Your task to perform on an android device: Open accessibility settings Image 0: 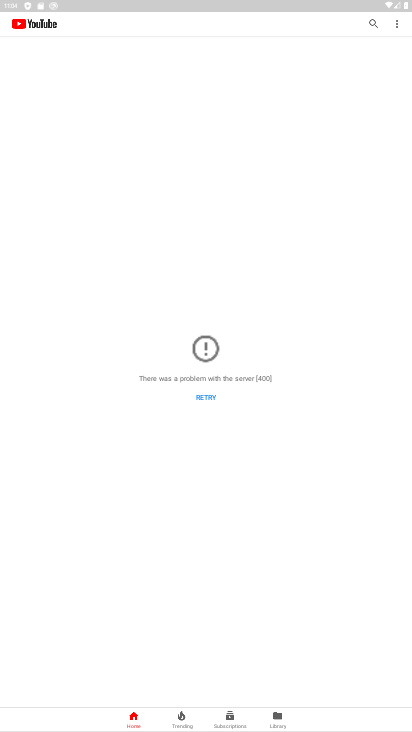
Step 0: press back button
Your task to perform on an android device: Open accessibility settings Image 1: 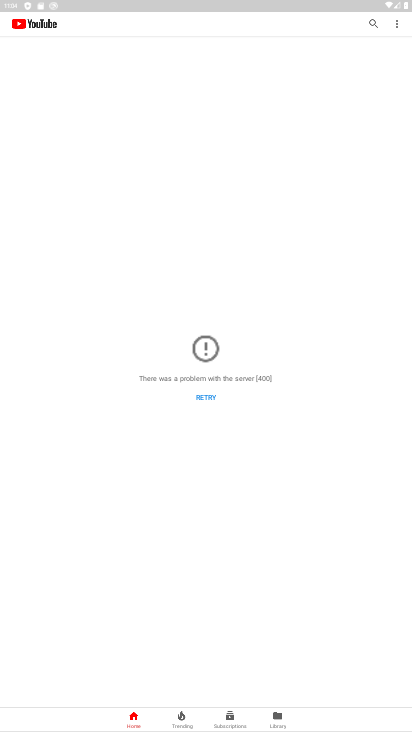
Step 1: press back button
Your task to perform on an android device: Open accessibility settings Image 2: 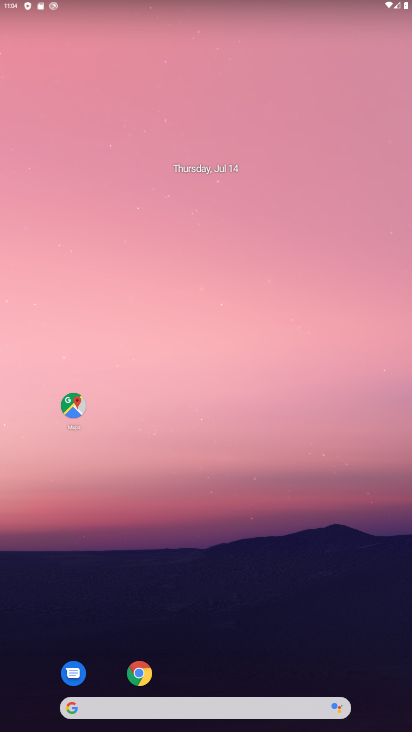
Step 2: press home button
Your task to perform on an android device: Open accessibility settings Image 3: 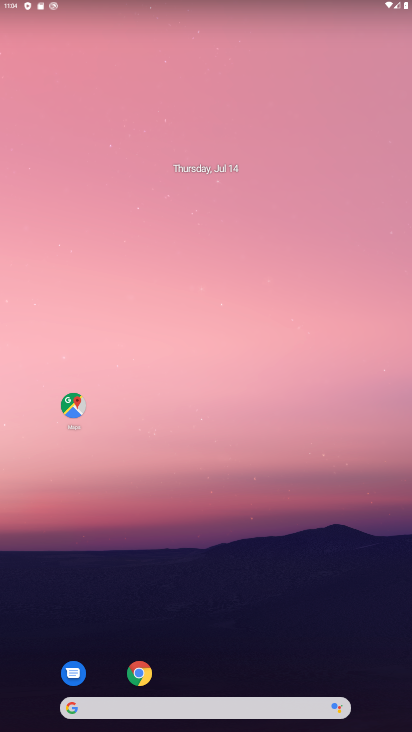
Step 3: press home button
Your task to perform on an android device: Open accessibility settings Image 4: 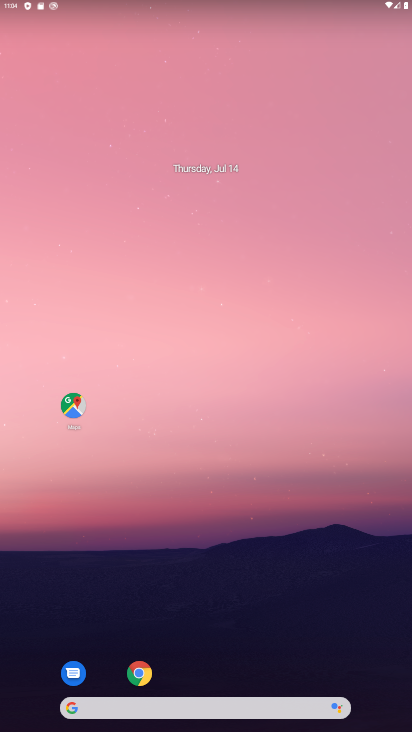
Step 4: drag from (172, 681) to (107, 143)
Your task to perform on an android device: Open accessibility settings Image 5: 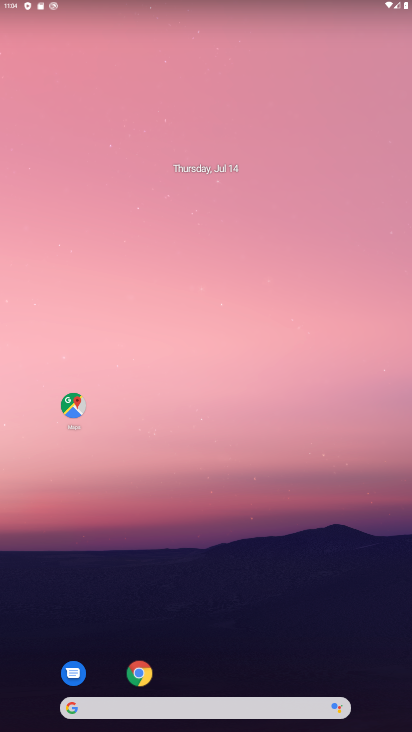
Step 5: drag from (213, 421) to (213, 117)
Your task to perform on an android device: Open accessibility settings Image 6: 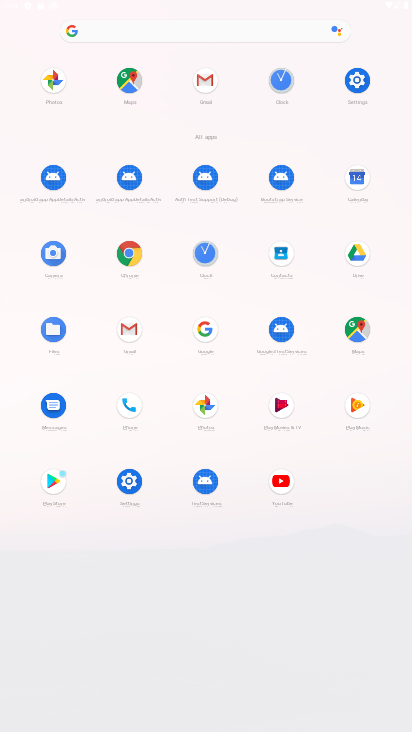
Step 6: drag from (149, 565) to (86, 133)
Your task to perform on an android device: Open accessibility settings Image 7: 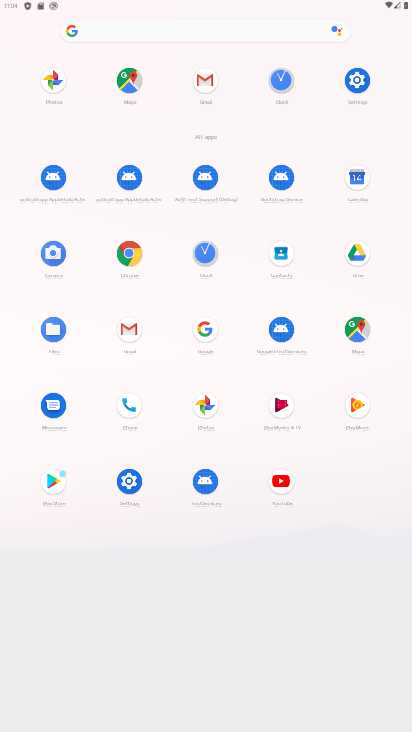
Step 7: click (119, 481)
Your task to perform on an android device: Open accessibility settings Image 8: 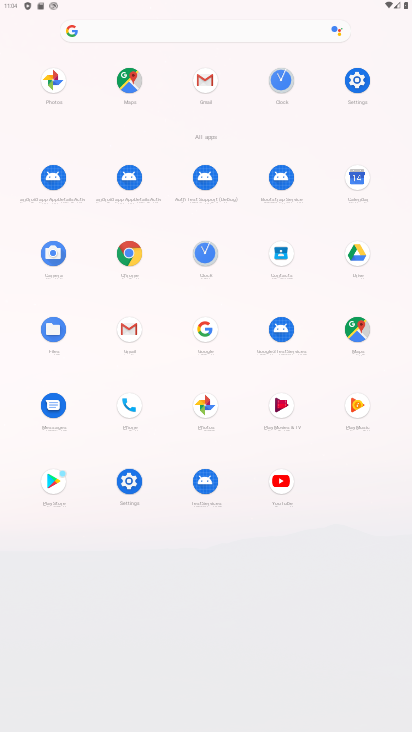
Step 8: click (122, 476)
Your task to perform on an android device: Open accessibility settings Image 9: 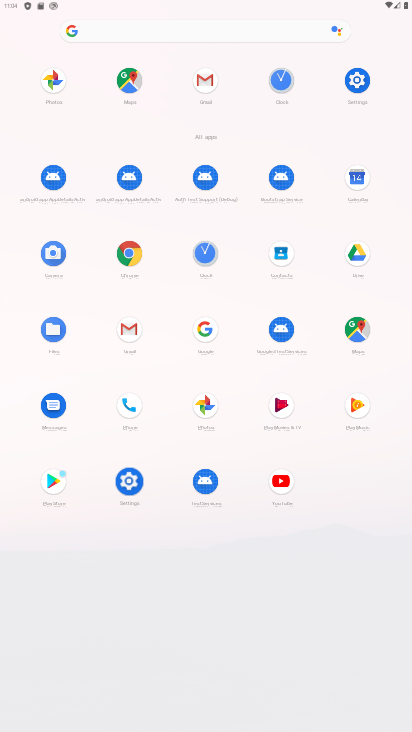
Step 9: click (122, 476)
Your task to perform on an android device: Open accessibility settings Image 10: 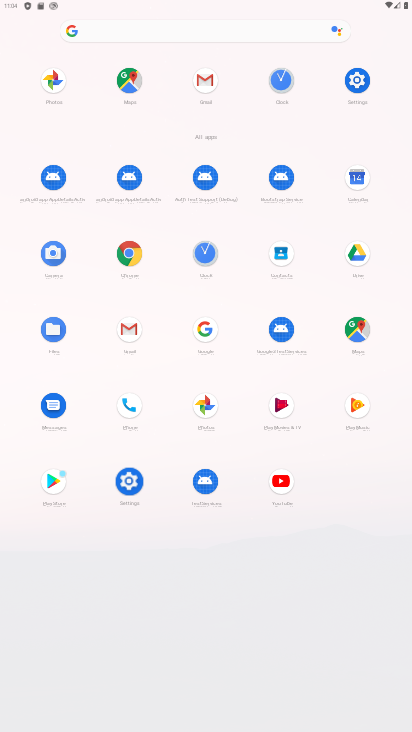
Step 10: click (122, 476)
Your task to perform on an android device: Open accessibility settings Image 11: 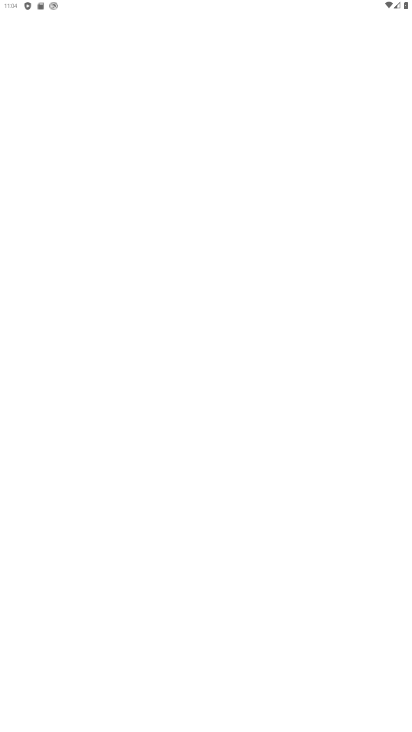
Step 11: click (126, 476)
Your task to perform on an android device: Open accessibility settings Image 12: 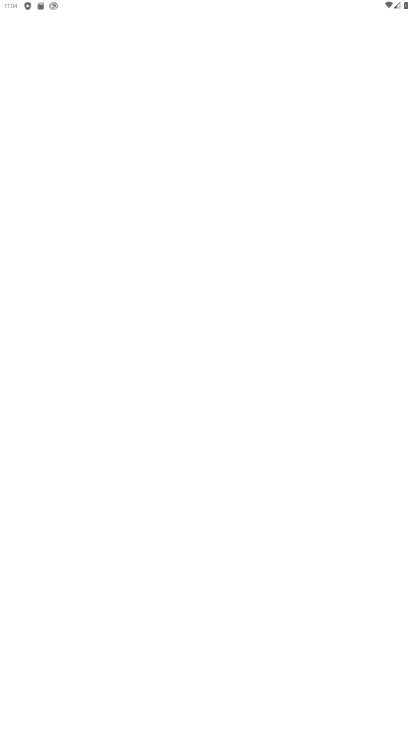
Step 12: click (123, 482)
Your task to perform on an android device: Open accessibility settings Image 13: 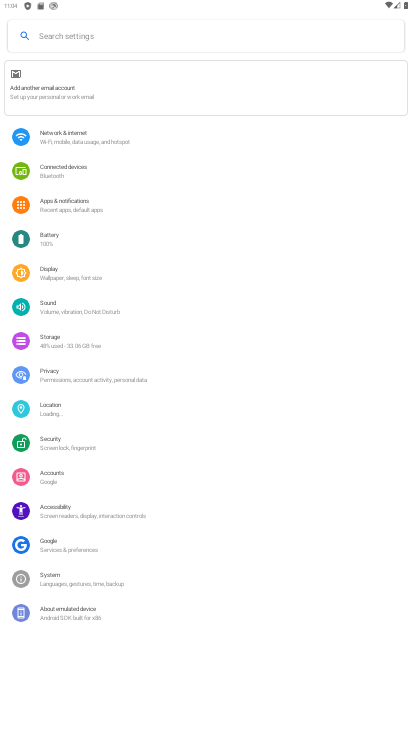
Step 13: click (64, 510)
Your task to perform on an android device: Open accessibility settings Image 14: 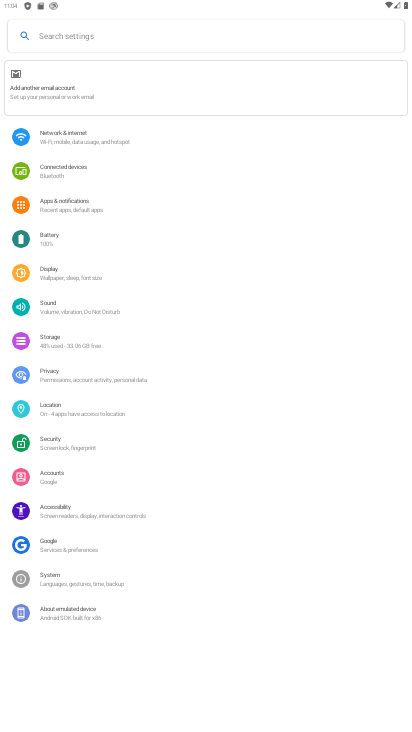
Step 14: click (63, 511)
Your task to perform on an android device: Open accessibility settings Image 15: 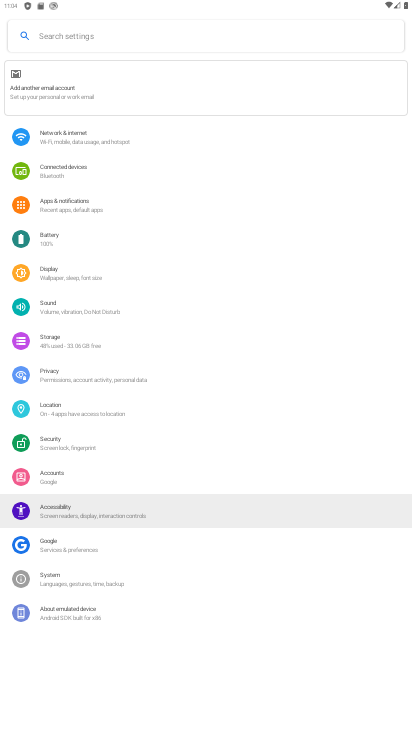
Step 15: click (64, 512)
Your task to perform on an android device: Open accessibility settings Image 16: 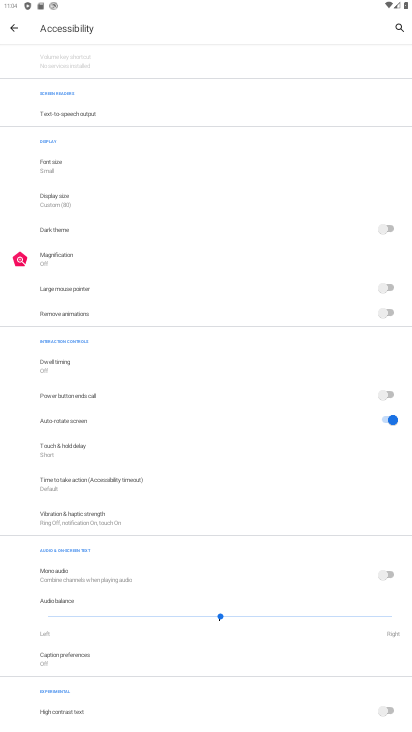
Step 16: task complete